Your task to perform on an android device: turn notification dots off Image 0: 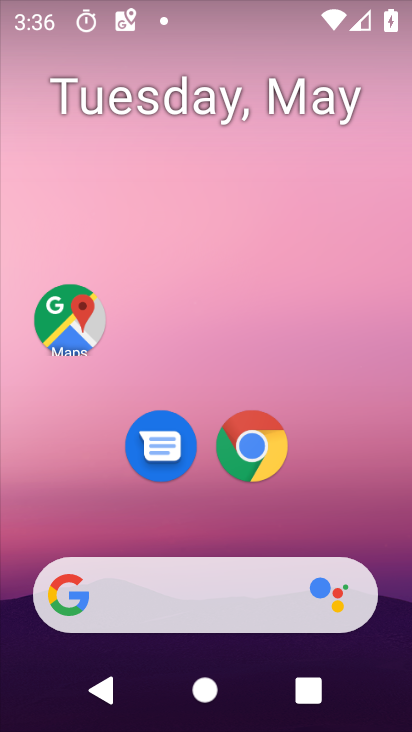
Step 0: drag from (228, 723) to (198, 140)
Your task to perform on an android device: turn notification dots off Image 1: 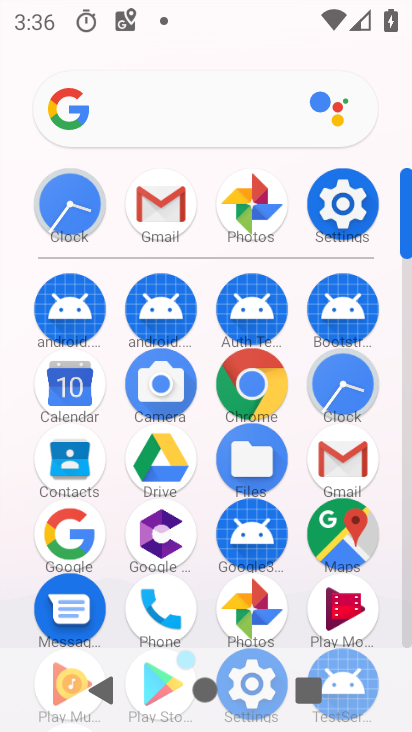
Step 1: click (350, 202)
Your task to perform on an android device: turn notification dots off Image 2: 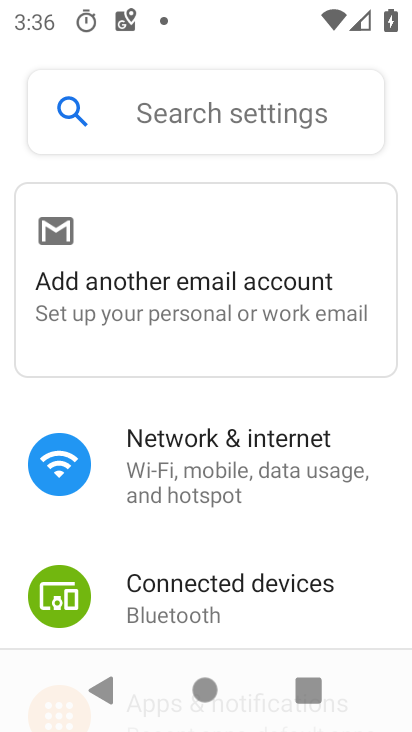
Step 2: drag from (266, 625) to (263, 224)
Your task to perform on an android device: turn notification dots off Image 3: 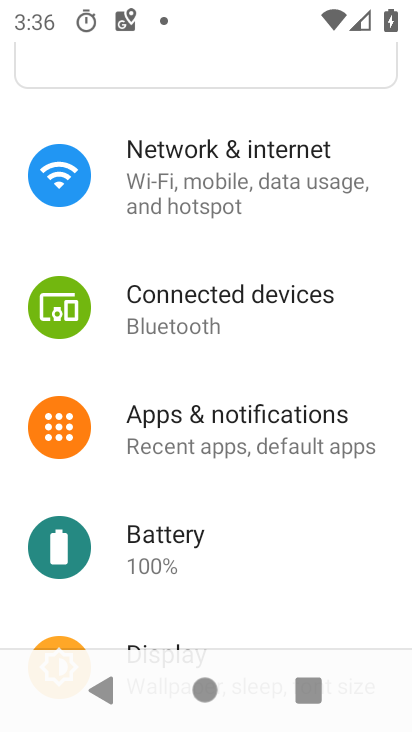
Step 3: drag from (193, 599) to (216, 469)
Your task to perform on an android device: turn notification dots off Image 4: 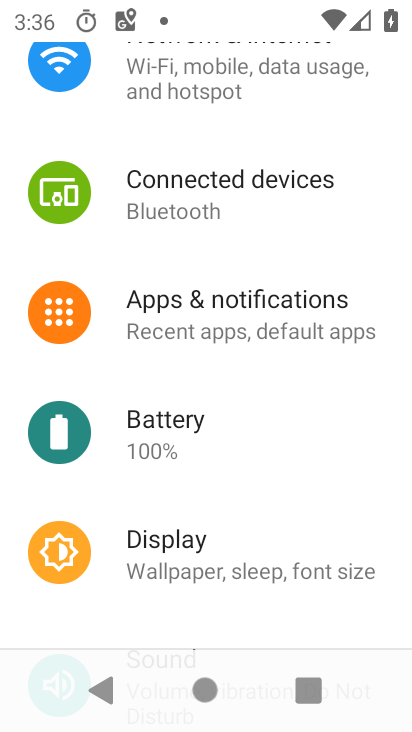
Step 4: click (237, 328)
Your task to perform on an android device: turn notification dots off Image 5: 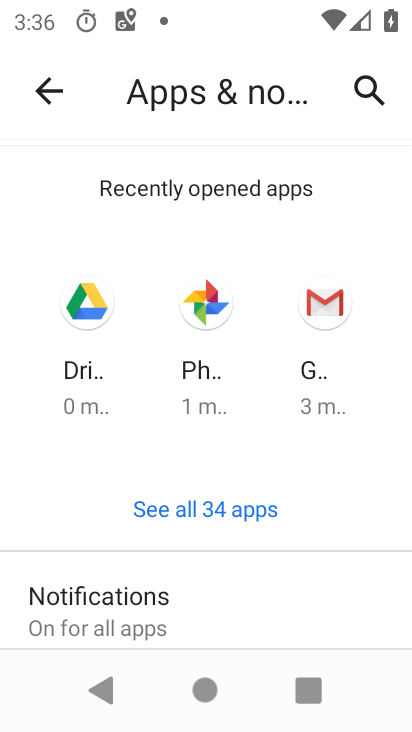
Step 5: drag from (202, 623) to (241, 389)
Your task to perform on an android device: turn notification dots off Image 6: 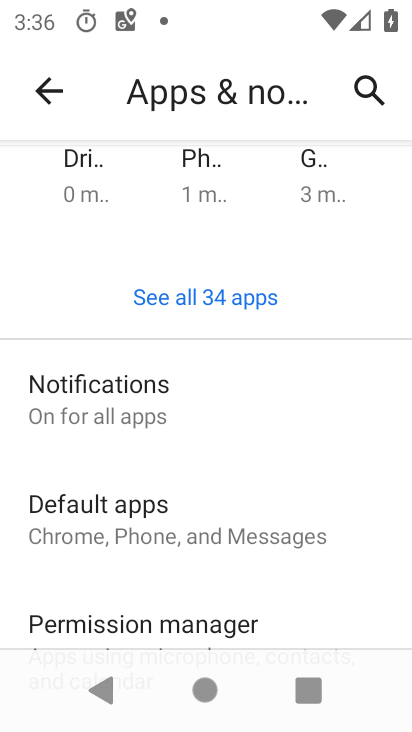
Step 6: click (88, 390)
Your task to perform on an android device: turn notification dots off Image 7: 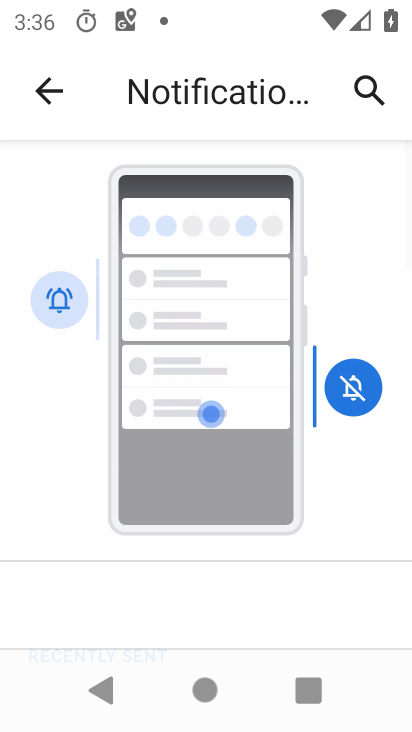
Step 7: drag from (259, 632) to (269, 198)
Your task to perform on an android device: turn notification dots off Image 8: 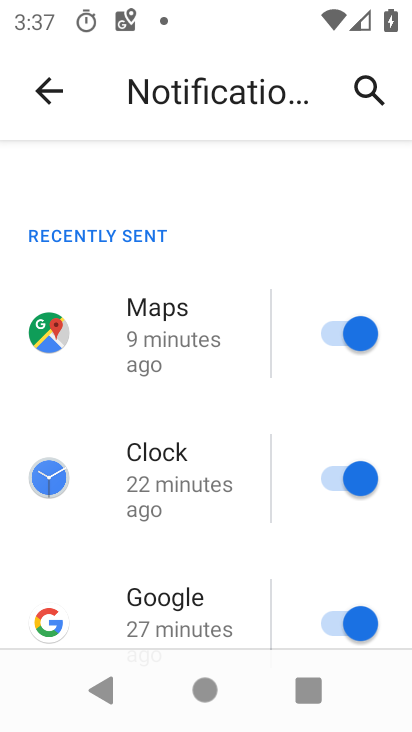
Step 8: drag from (183, 593) to (188, 286)
Your task to perform on an android device: turn notification dots off Image 9: 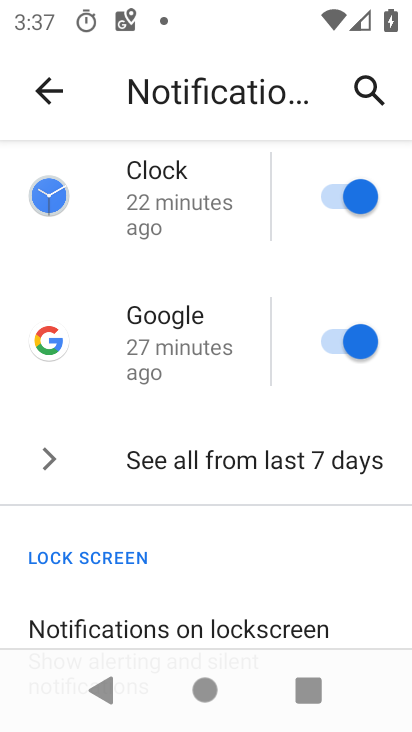
Step 9: drag from (198, 618) to (197, 240)
Your task to perform on an android device: turn notification dots off Image 10: 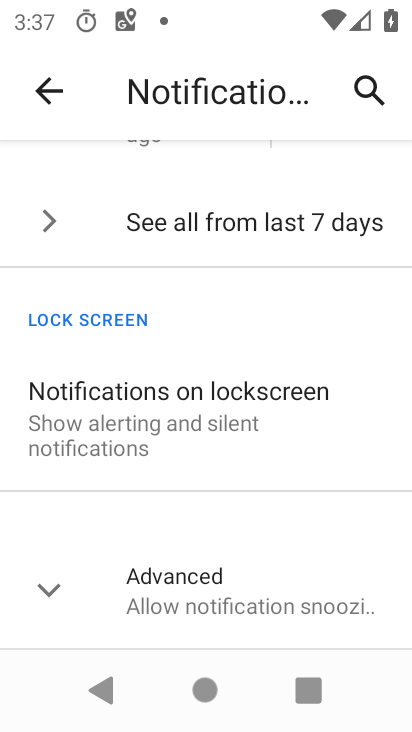
Step 10: click (212, 589)
Your task to perform on an android device: turn notification dots off Image 11: 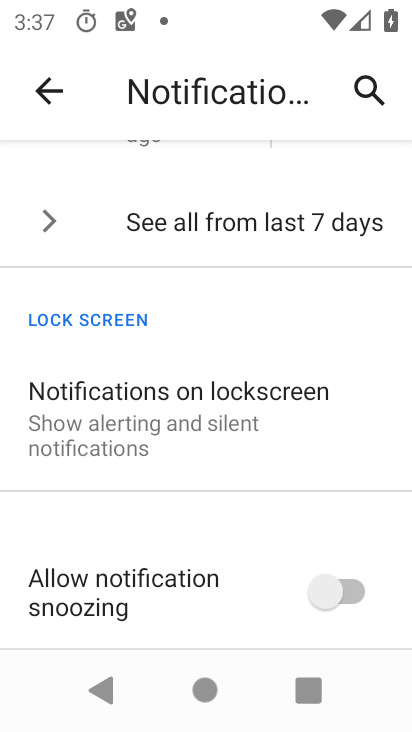
Step 11: drag from (250, 624) to (242, 364)
Your task to perform on an android device: turn notification dots off Image 12: 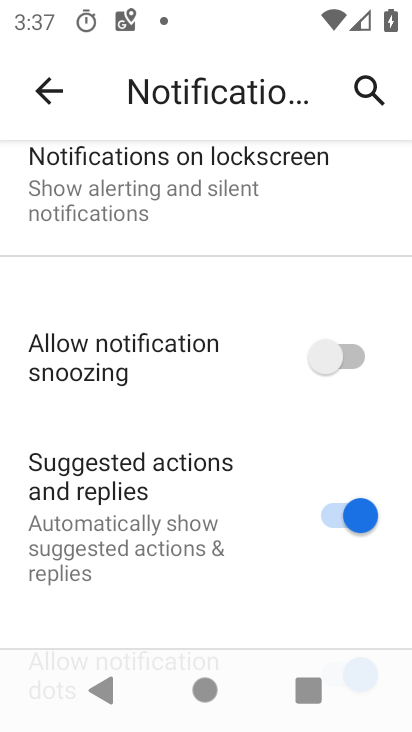
Step 12: drag from (267, 616) to (271, 261)
Your task to perform on an android device: turn notification dots off Image 13: 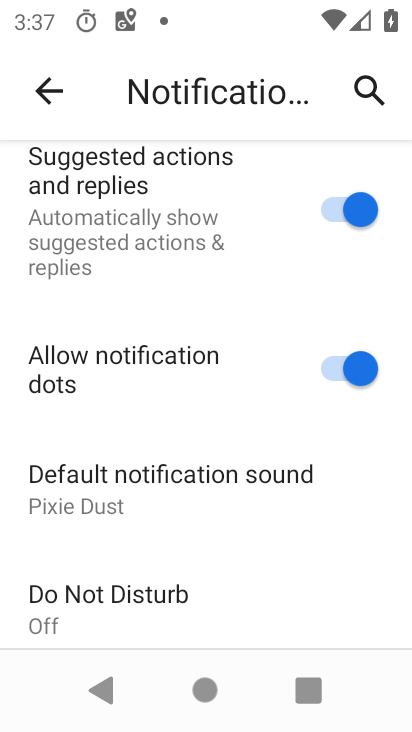
Step 13: click (332, 366)
Your task to perform on an android device: turn notification dots off Image 14: 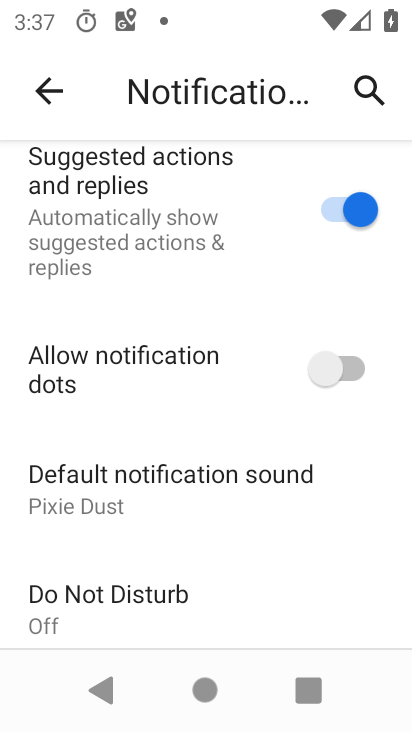
Step 14: task complete